Your task to perform on an android device: Go to Yahoo.com Image 0: 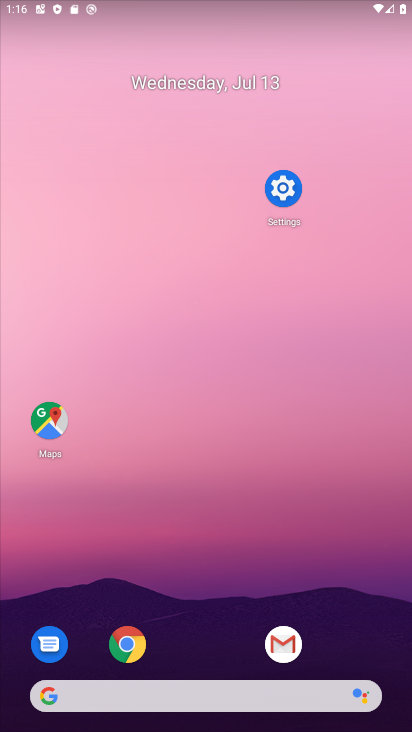
Step 0: press home button
Your task to perform on an android device: Go to Yahoo.com Image 1: 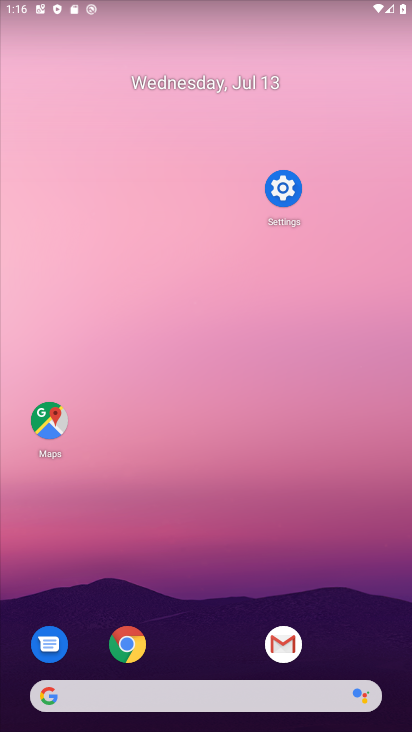
Step 1: click (136, 647)
Your task to perform on an android device: Go to Yahoo.com Image 2: 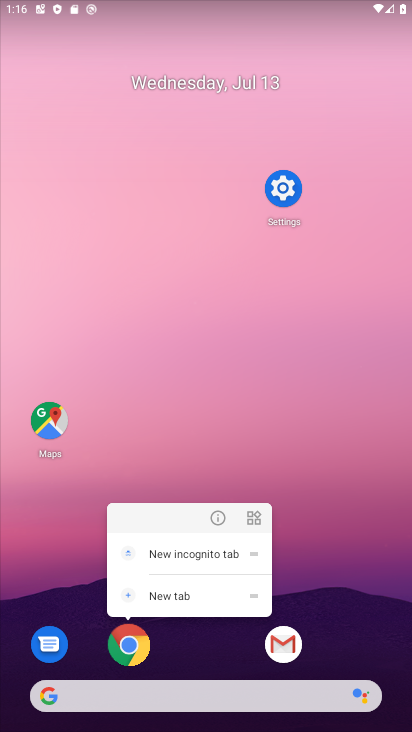
Step 2: click (136, 646)
Your task to perform on an android device: Go to Yahoo.com Image 3: 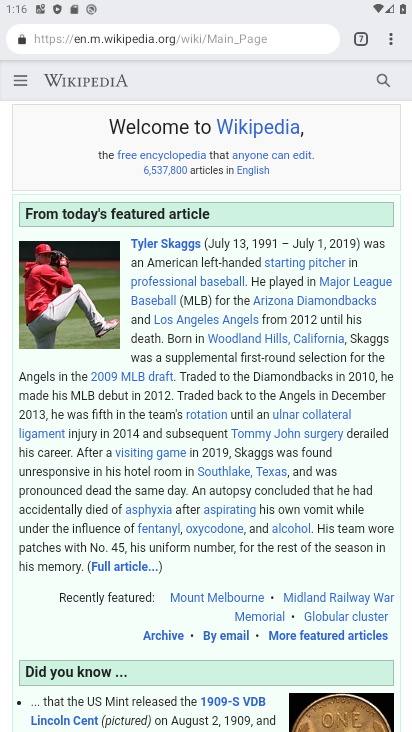
Step 3: click (389, 50)
Your task to perform on an android device: Go to Yahoo.com Image 4: 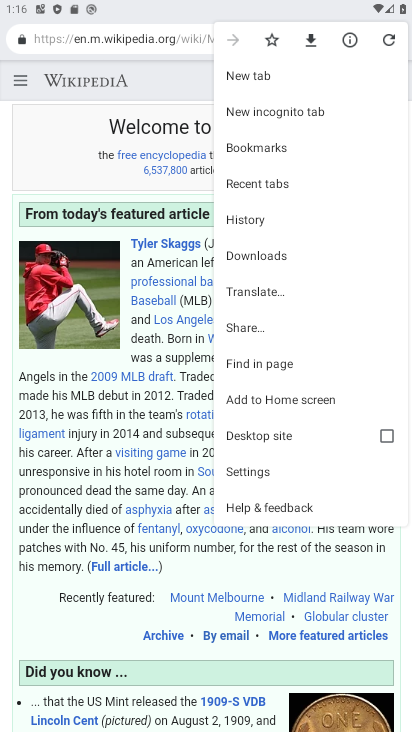
Step 4: click (279, 80)
Your task to perform on an android device: Go to Yahoo.com Image 5: 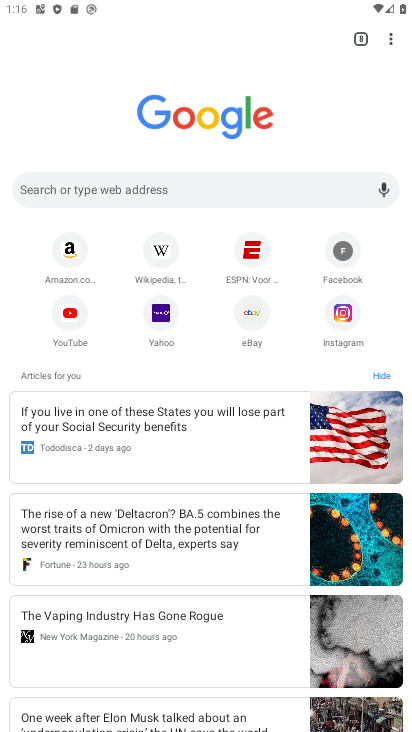
Step 5: click (167, 326)
Your task to perform on an android device: Go to Yahoo.com Image 6: 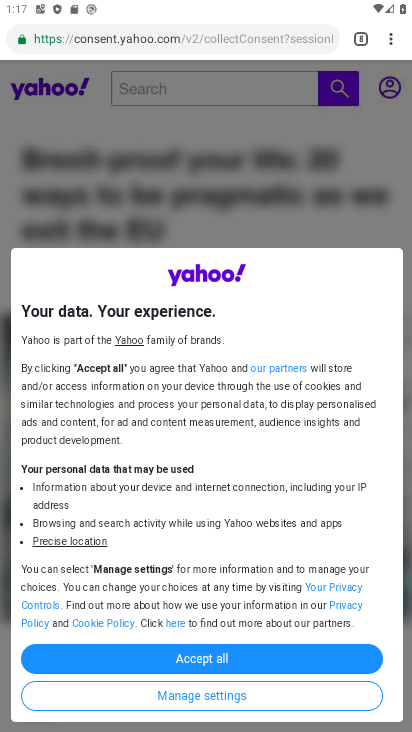
Step 6: click (212, 654)
Your task to perform on an android device: Go to Yahoo.com Image 7: 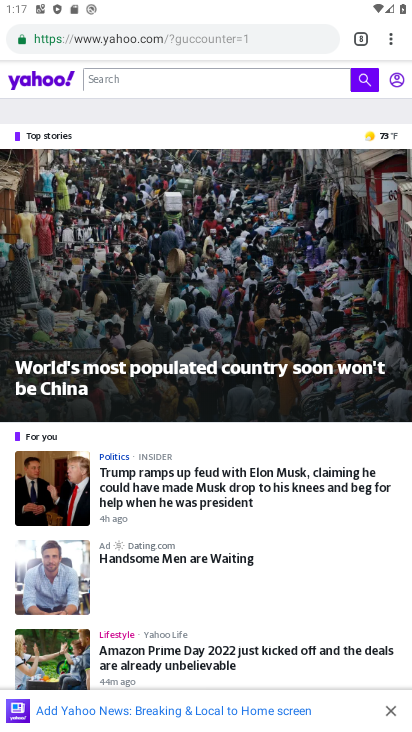
Step 7: task complete